Your task to perform on an android device: Open Google Maps and go to "Timeline" Image 0: 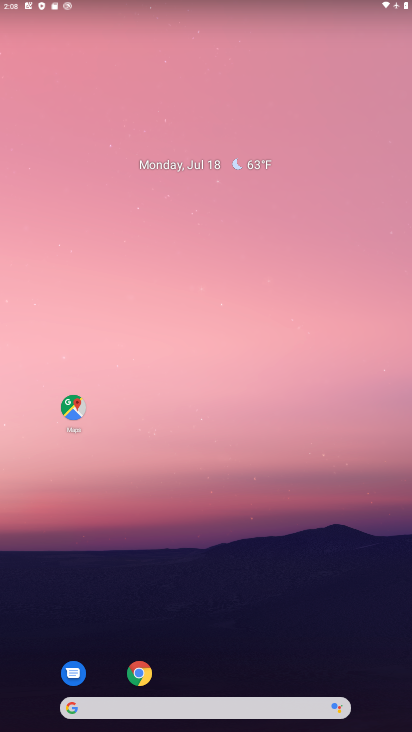
Step 0: click (71, 407)
Your task to perform on an android device: Open Google Maps and go to "Timeline" Image 1: 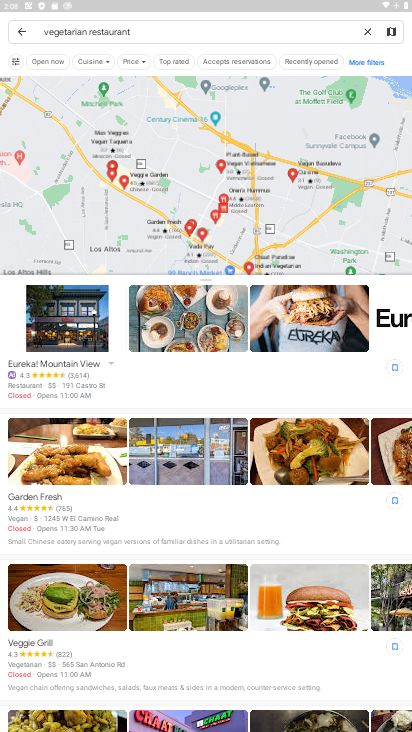
Step 1: click (376, 24)
Your task to perform on an android device: Open Google Maps and go to "Timeline" Image 2: 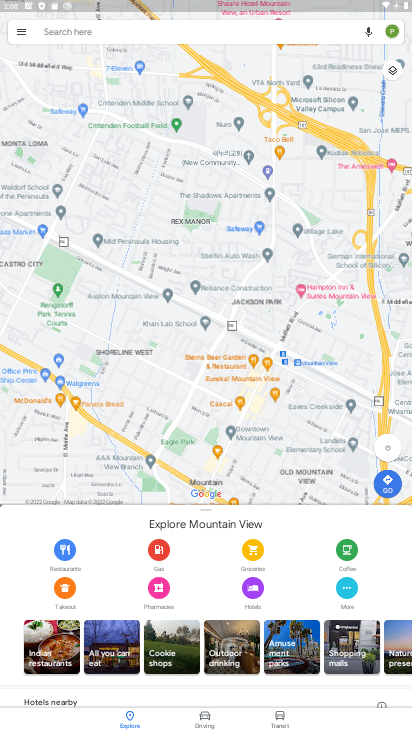
Step 2: click (21, 28)
Your task to perform on an android device: Open Google Maps and go to "Timeline" Image 3: 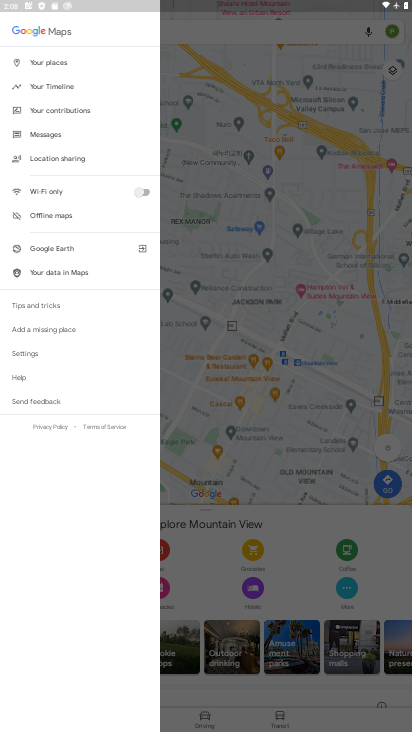
Step 3: click (33, 72)
Your task to perform on an android device: Open Google Maps and go to "Timeline" Image 4: 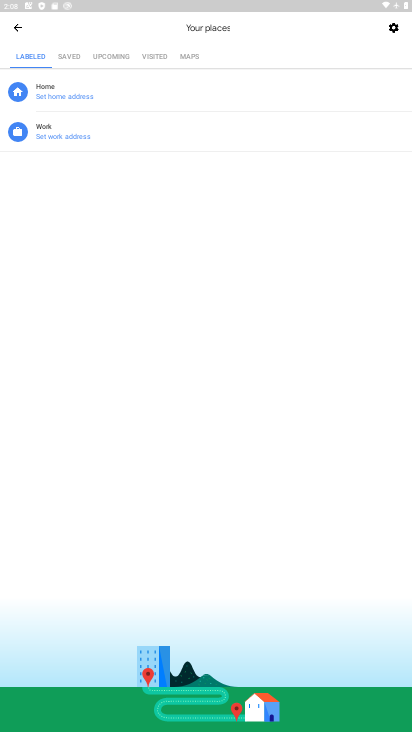
Step 4: click (15, 33)
Your task to perform on an android device: Open Google Maps and go to "Timeline" Image 5: 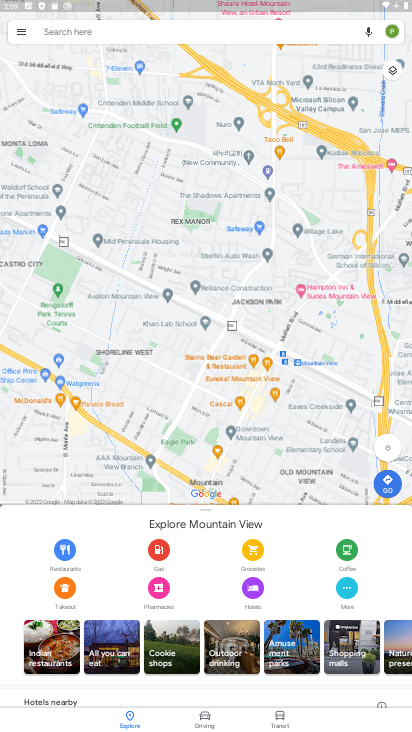
Step 5: click (15, 30)
Your task to perform on an android device: Open Google Maps and go to "Timeline" Image 6: 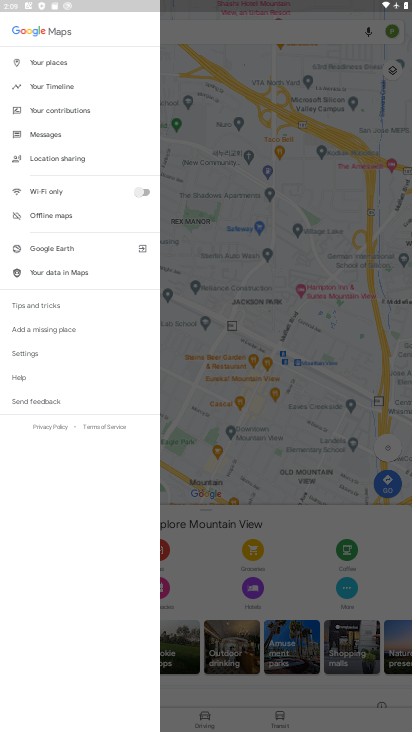
Step 6: click (45, 91)
Your task to perform on an android device: Open Google Maps and go to "Timeline" Image 7: 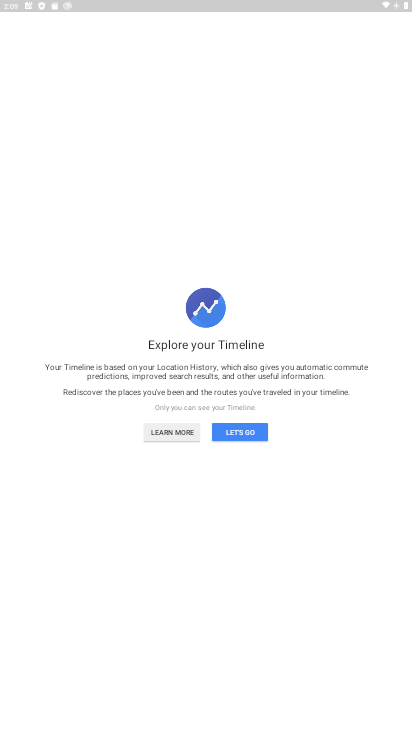
Step 7: click (236, 418)
Your task to perform on an android device: Open Google Maps and go to "Timeline" Image 8: 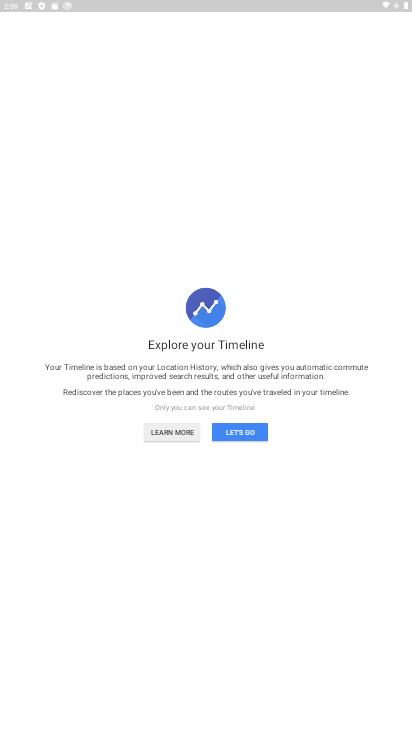
Step 8: click (239, 436)
Your task to perform on an android device: Open Google Maps and go to "Timeline" Image 9: 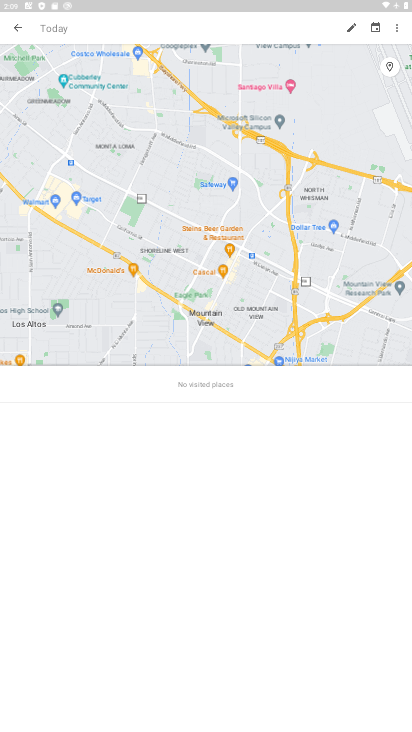
Step 9: task complete